Your task to perform on an android device: stop showing notifications on the lock screen Image 0: 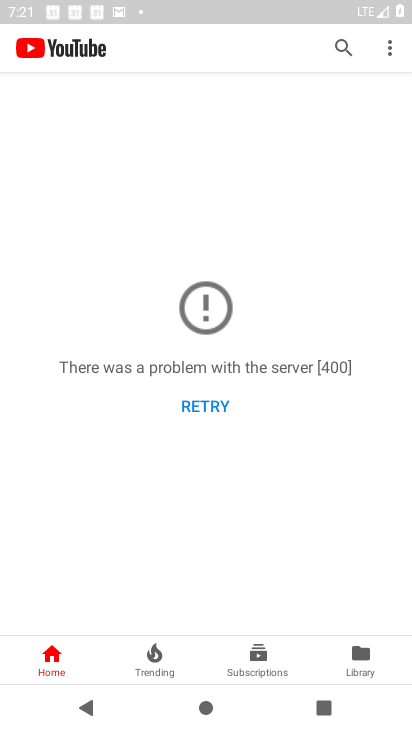
Step 0: press home button
Your task to perform on an android device: stop showing notifications on the lock screen Image 1: 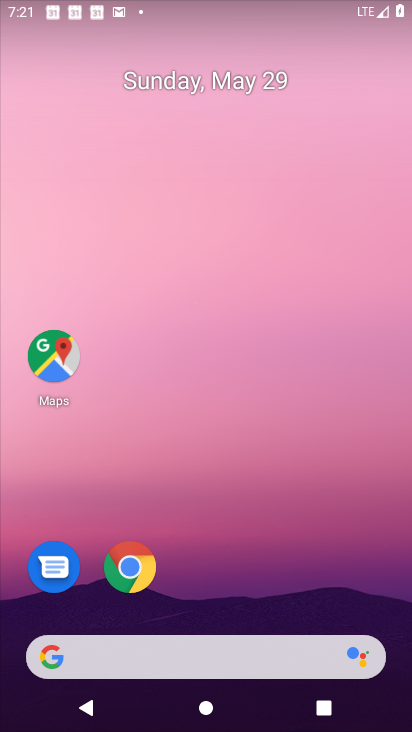
Step 1: drag from (239, 433) to (263, 288)
Your task to perform on an android device: stop showing notifications on the lock screen Image 2: 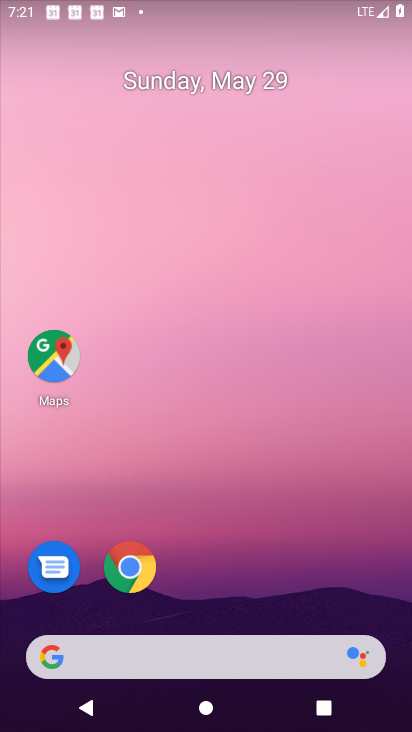
Step 2: drag from (212, 562) to (212, 261)
Your task to perform on an android device: stop showing notifications on the lock screen Image 3: 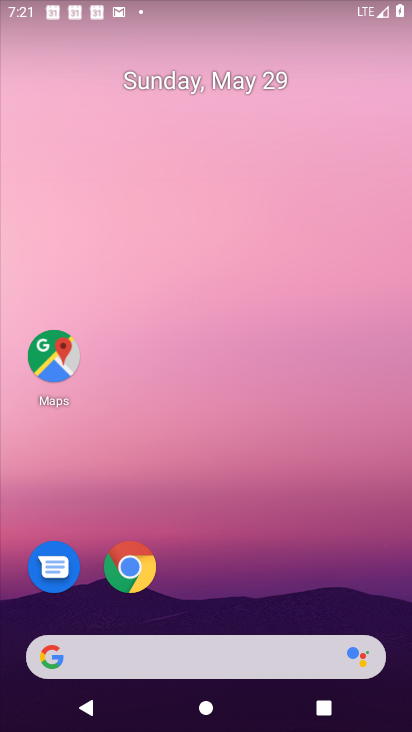
Step 3: drag from (212, 610) to (250, 161)
Your task to perform on an android device: stop showing notifications on the lock screen Image 4: 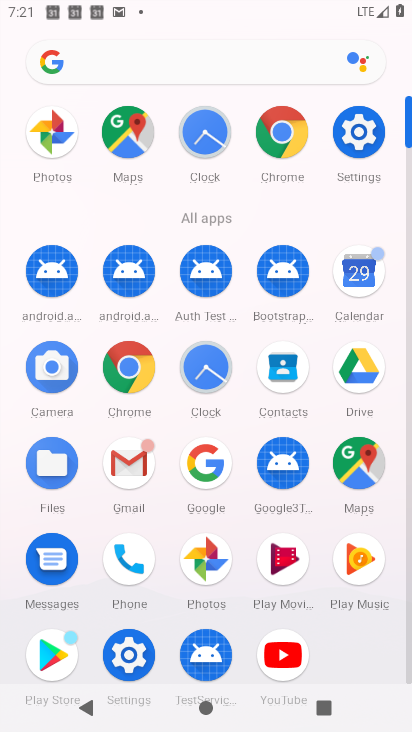
Step 4: click (369, 121)
Your task to perform on an android device: stop showing notifications on the lock screen Image 5: 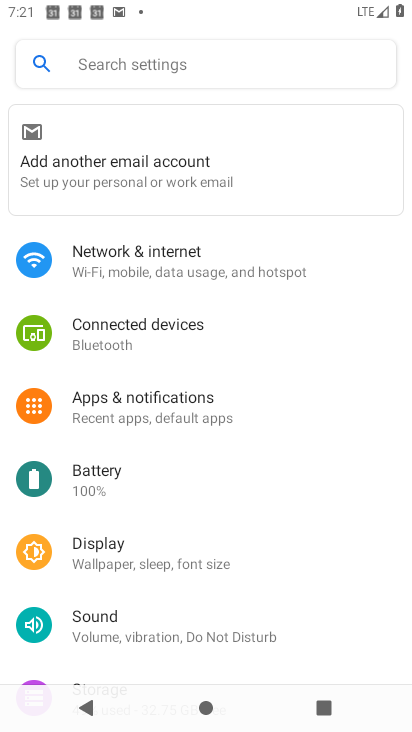
Step 5: click (163, 397)
Your task to perform on an android device: stop showing notifications on the lock screen Image 6: 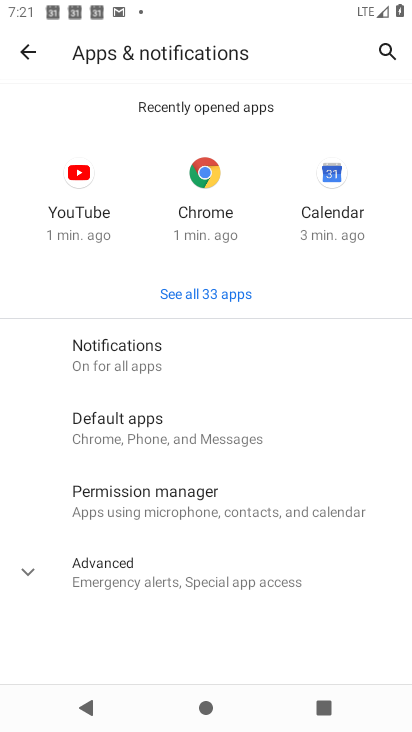
Step 6: click (171, 568)
Your task to perform on an android device: stop showing notifications on the lock screen Image 7: 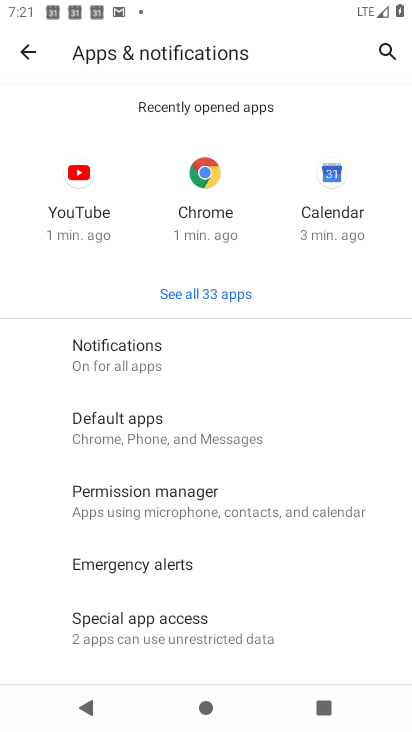
Step 7: click (107, 344)
Your task to perform on an android device: stop showing notifications on the lock screen Image 8: 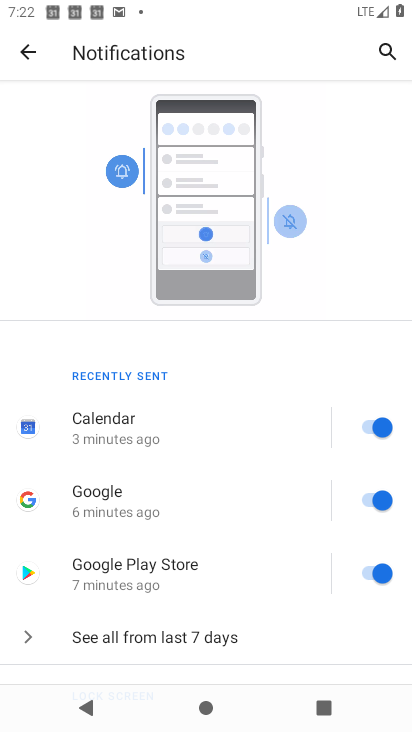
Step 8: drag from (175, 595) to (187, 240)
Your task to perform on an android device: stop showing notifications on the lock screen Image 9: 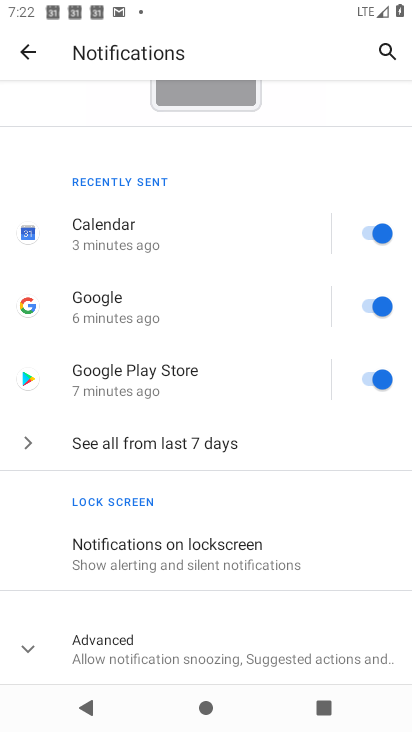
Step 9: drag from (134, 572) to (151, 310)
Your task to perform on an android device: stop showing notifications on the lock screen Image 10: 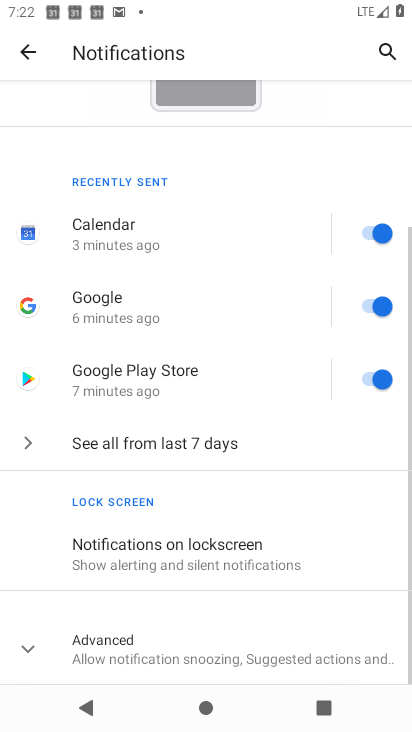
Step 10: click (129, 638)
Your task to perform on an android device: stop showing notifications on the lock screen Image 11: 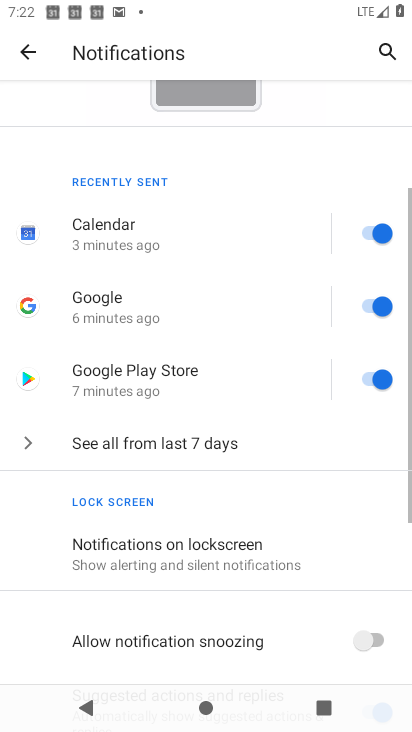
Step 11: click (169, 525)
Your task to perform on an android device: stop showing notifications on the lock screen Image 12: 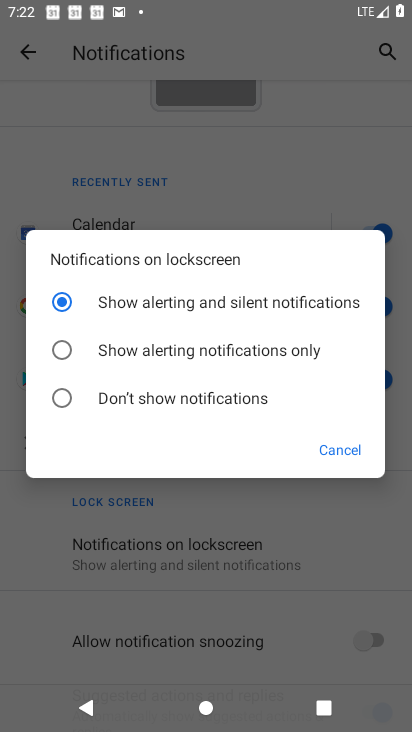
Step 12: click (88, 400)
Your task to perform on an android device: stop showing notifications on the lock screen Image 13: 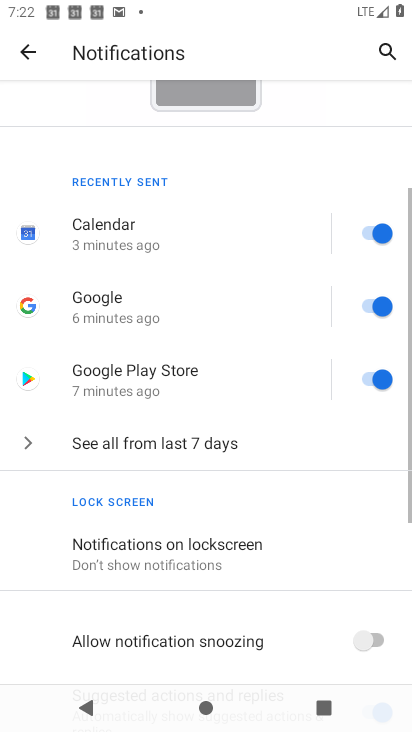
Step 13: task complete